Your task to perform on an android device: check data usage Image 0: 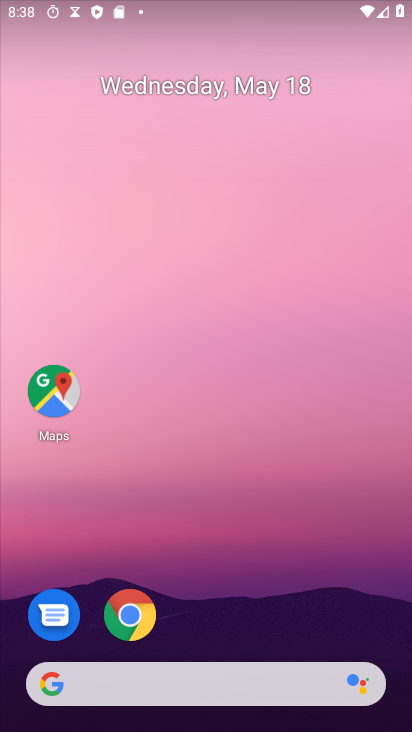
Step 0: drag from (298, 451) to (277, 106)
Your task to perform on an android device: check data usage Image 1: 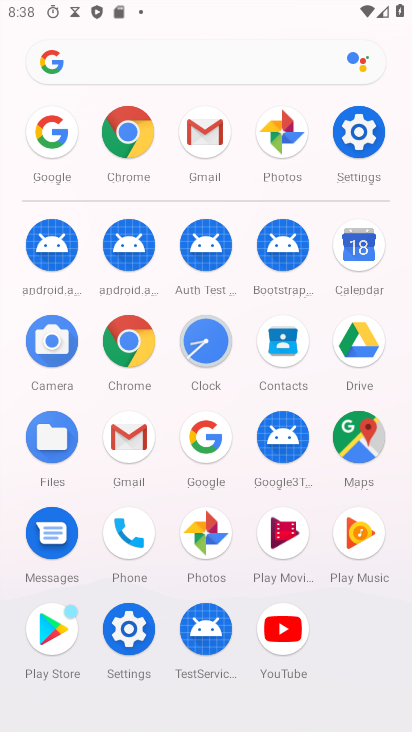
Step 1: click (371, 122)
Your task to perform on an android device: check data usage Image 2: 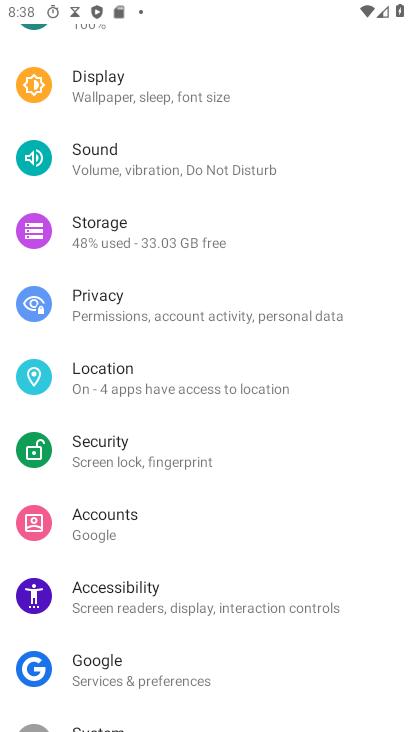
Step 2: drag from (209, 106) to (268, 622)
Your task to perform on an android device: check data usage Image 3: 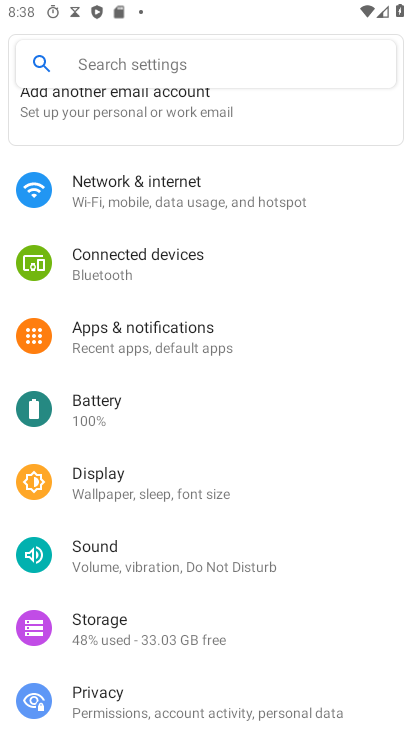
Step 3: click (186, 193)
Your task to perform on an android device: check data usage Image 4: 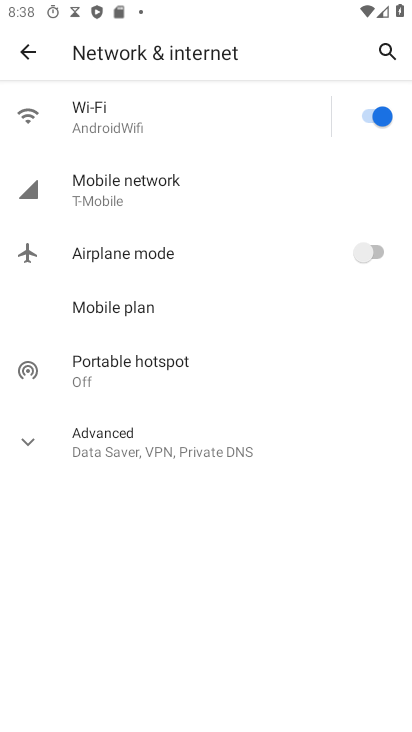
Step 4: click (120, 201)
Your task to perform on an android device: check data usage Image 5: 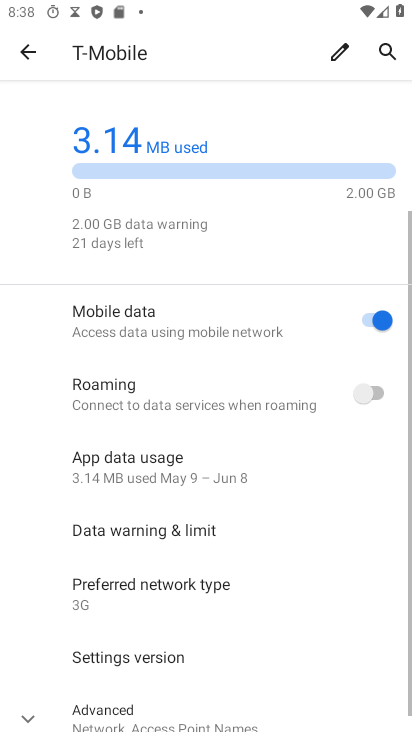
Step 5: click (175, 467)
Your task to perform on an android device: check data usage Image 6: 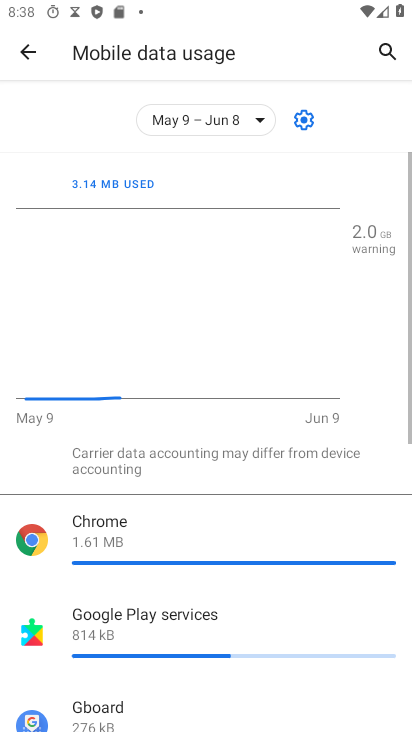
Step 6: task complete